Your task to perform on an android device: What's the weather? Image 0: 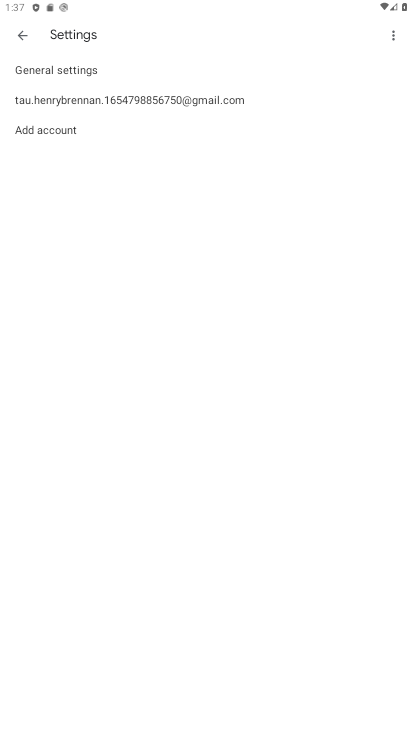
Step 0: press home button
Your task to perform on an android device: What's the weather? Image 1: 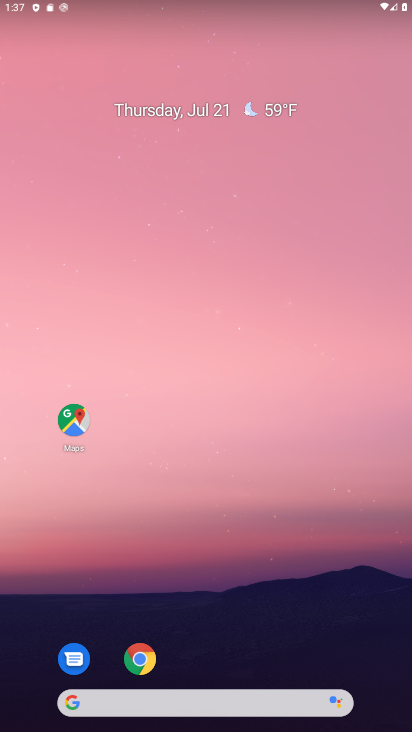
Step 1: click (264, 110)
Your task to perform on an android device: What's the weather? Image 2: 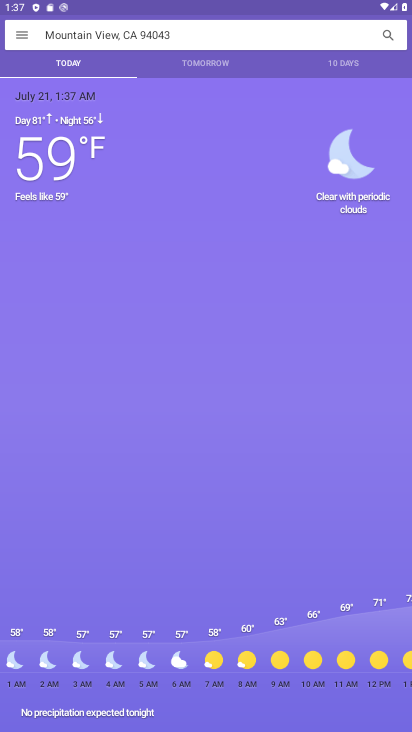
Step 2: task complete